Your task to perform on an android device: Open privacy settings Image 0: 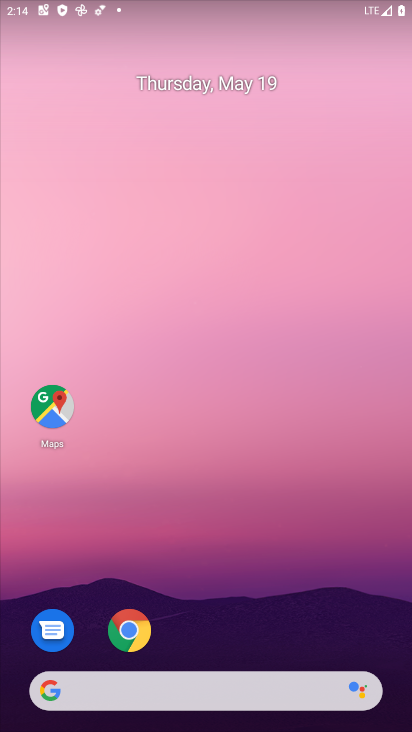
Step 0: drag from (384, 637) to (332, 92)
Your task to perform on an android device: Open privacy settings Image 1: 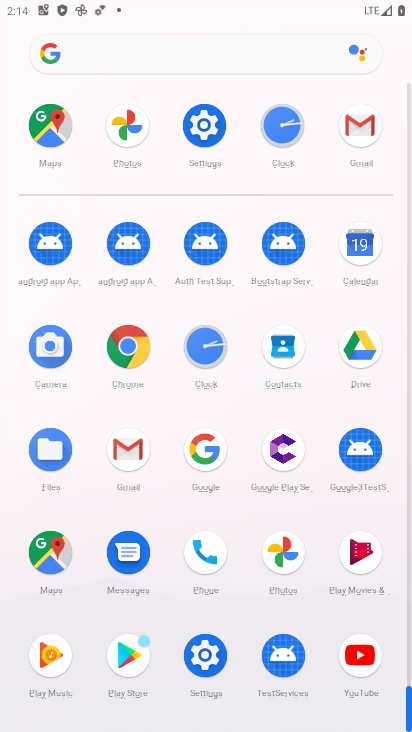
Step 1: click (203, 654)
Your task to perform on an android device: Open privacy settings Image 2: 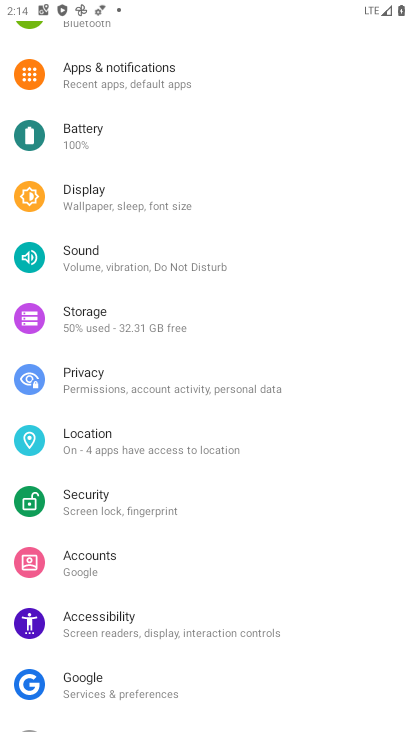
Step 2: click (95, 381)
Your task to perform on an android device: Open privacy settings Image 3: 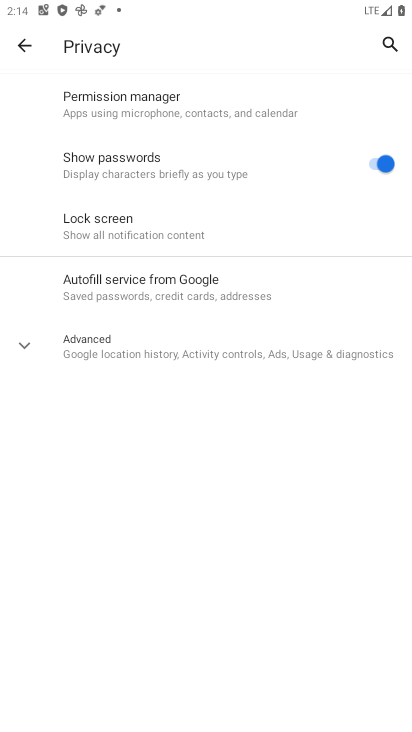
Step 3: click (21, 348)
Your task to perform on an android device: Open privacy settings Image 4: 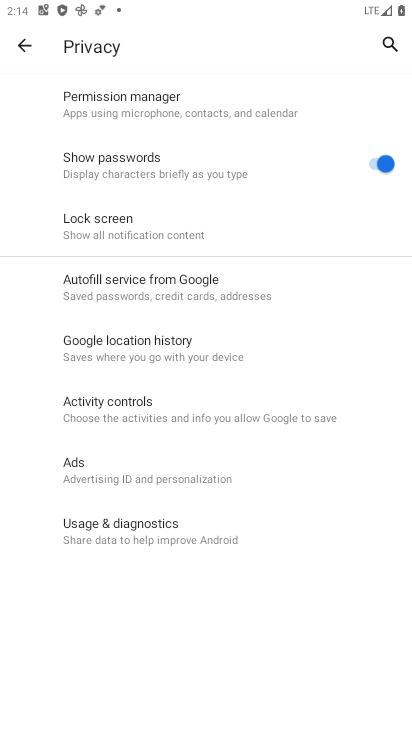
Step 4: task complete